Your task to perform on an android device: toggle translation in the chrome app Image 0: 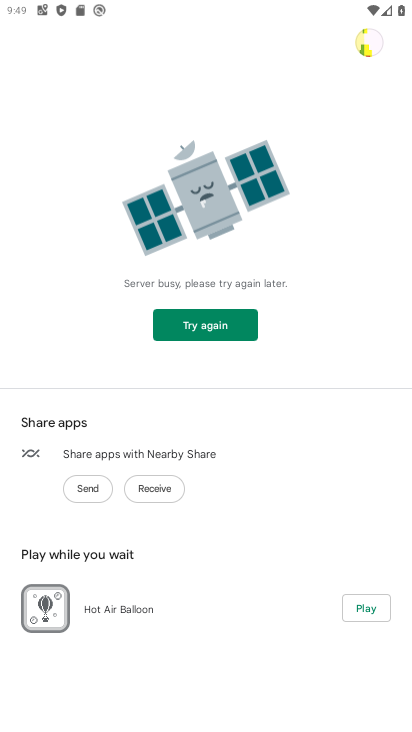
Step 0: press home button
Your task to perform on an android device: toggle translation in the chrome app Image 1: 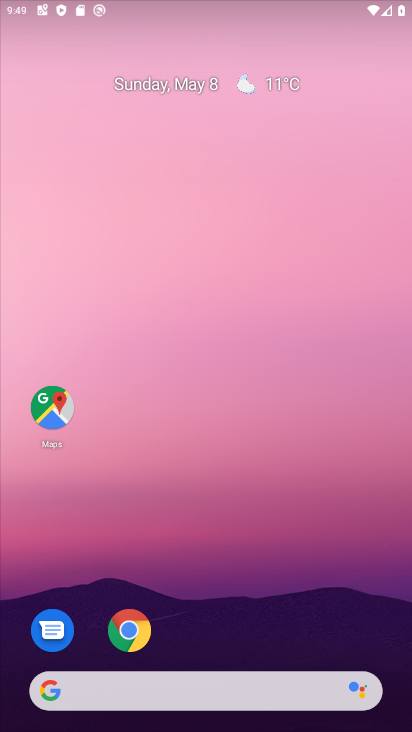
Step 1: drag from (373, 622) to (245, 38)
Your task to perform on an android device: toggle translation in the chrome app Image 2: 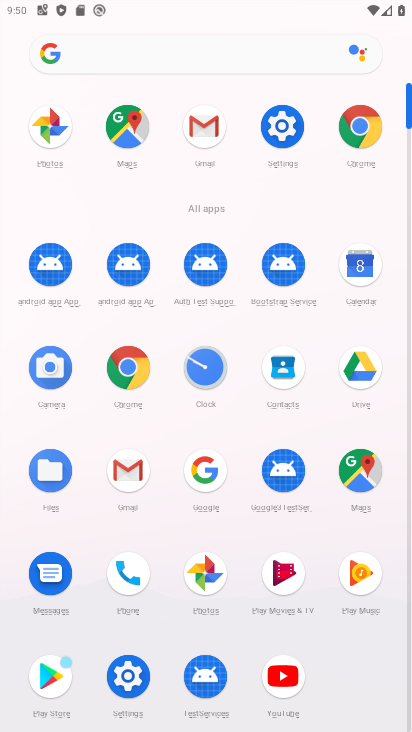
Step 2: click (348, 132)
Your task to perform on an android device: toggle translation in the chrome app Image 3: 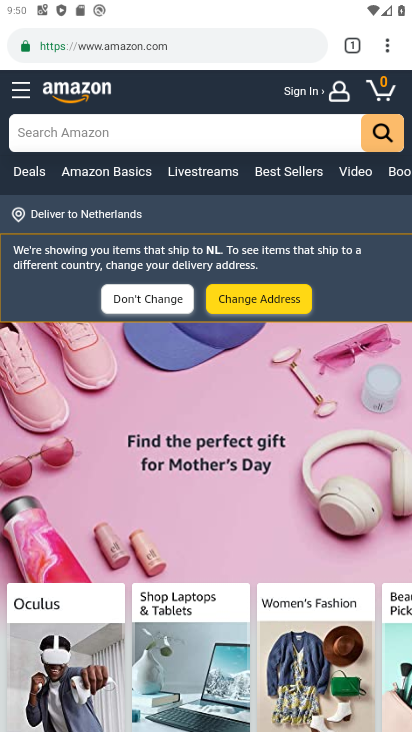
Step 3: press back button
Your task to perform on an android device: toggle translation in the chrome app Image 4: 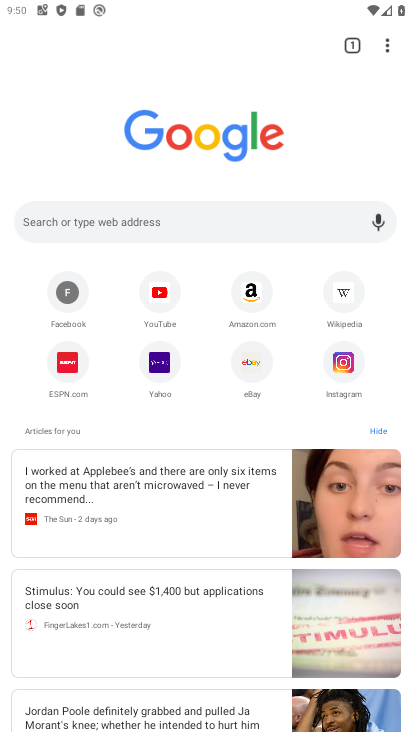
Step 4: click (382, 39)
Your task to perform on an android device: toggle translation in the chrome app Image 5: 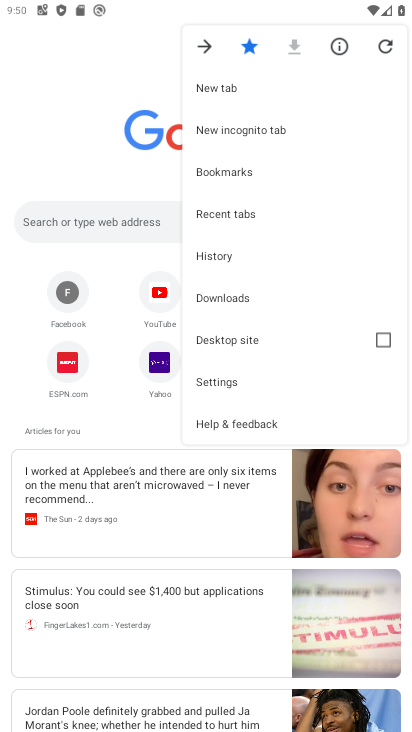
Step 5: click (252, 387)
Your task to perform on an android device: toggle translation in the chrome app Image 6: 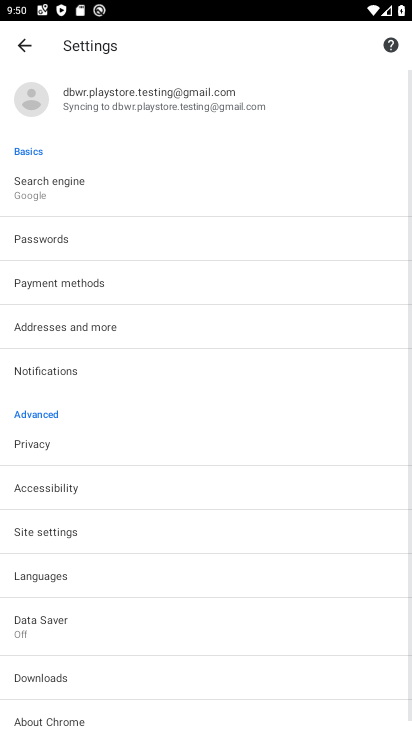
Step 6: click (79, 578)
Your task to perform on an android device: toggle translation in the chrome app Image 7: 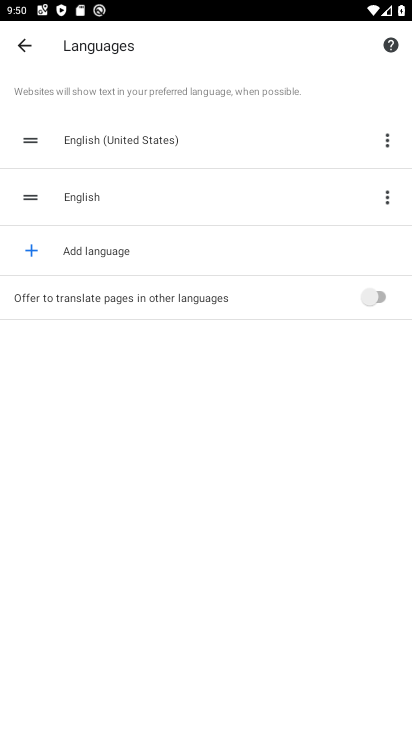
Step 7: click (332, 304)
Your task to perform on an android device: toggle translation in the chrome app Image 8: 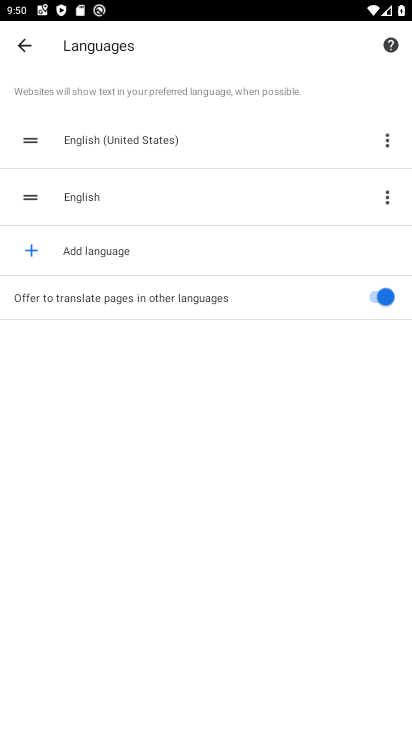
Step 8: task complete